Your task to perform on an android device: Open ESPN.com Image 0: 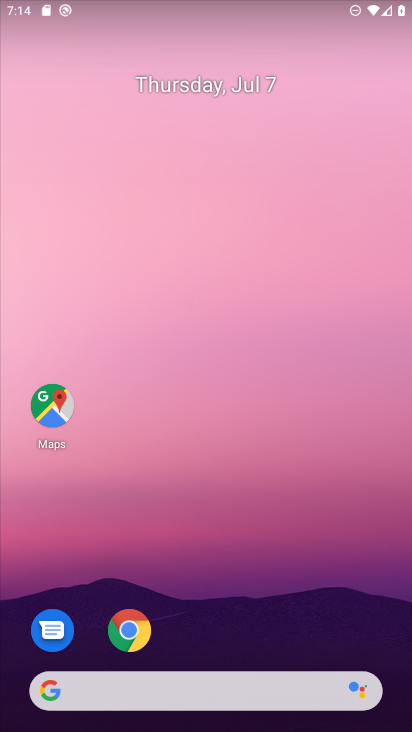
Step 0: click (123, 634)
Your task to perform on an android device: Open ESPN.com Image 1: 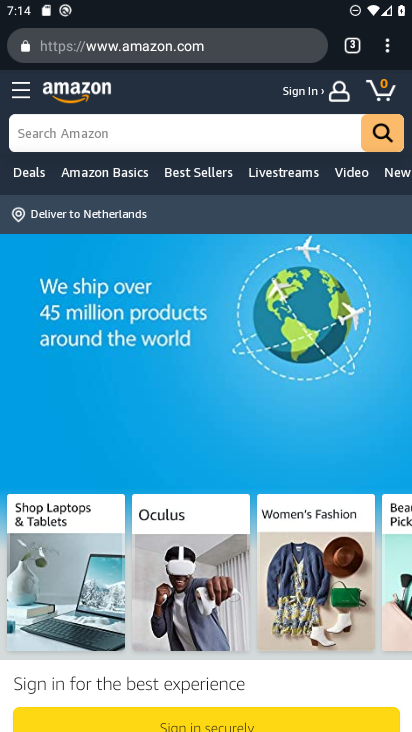
Step 1: click (387, 47)
Your task to perform on an android device: Open ESPN.com Image 2: 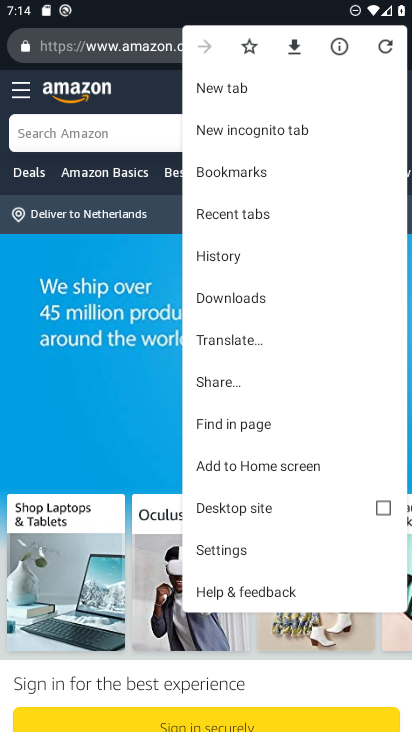
Step 2: click (234, 83)
Your task to perform on an android device: Open ESPN.com Image 3: 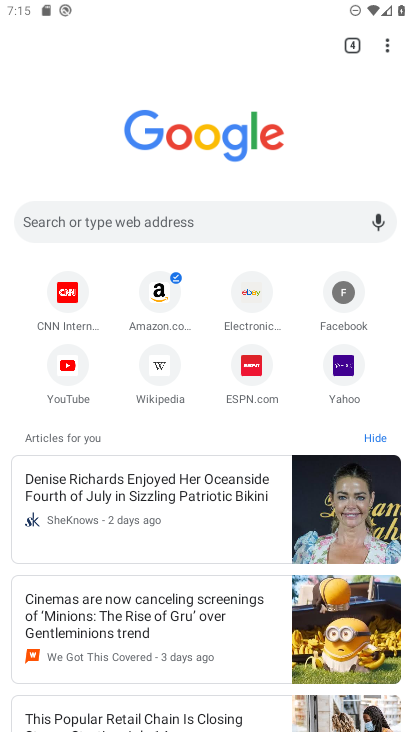
Step 3: click (253, 363)
Your task to perform on an android device: Open ESPN.com Image 4: 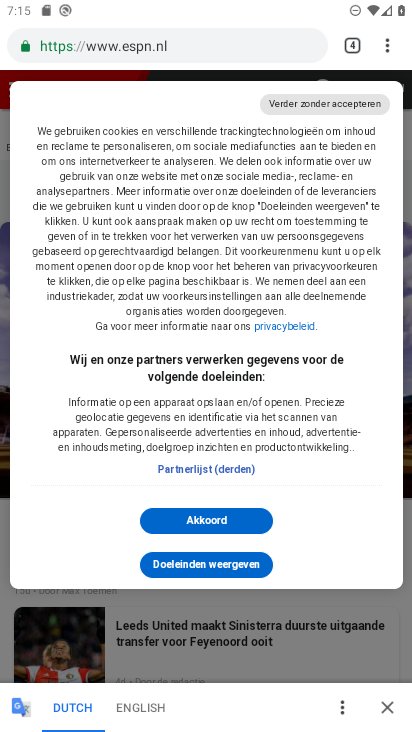
Step 4: click (200, 522)
Your task to perform on an android device: Open ESPN.com Image 5: 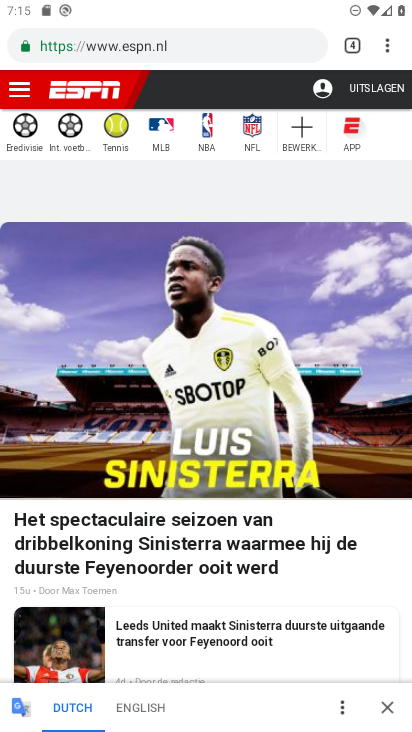
Step 5: task complete